Your task to perform on an android device: Open Google Chrome and click the shortcut for Amazon.com Image 0: 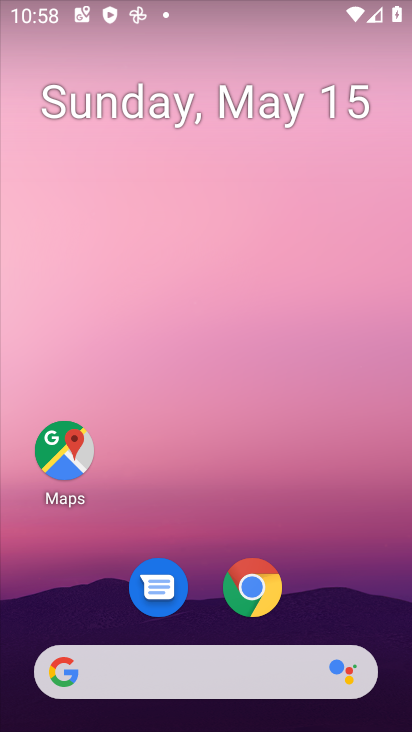
Step 0: drag from (383, 668) to (331, 74)
Your task to perform on an android device: Open Google Chrome and click the shortcut for Amazon.com Image 1: 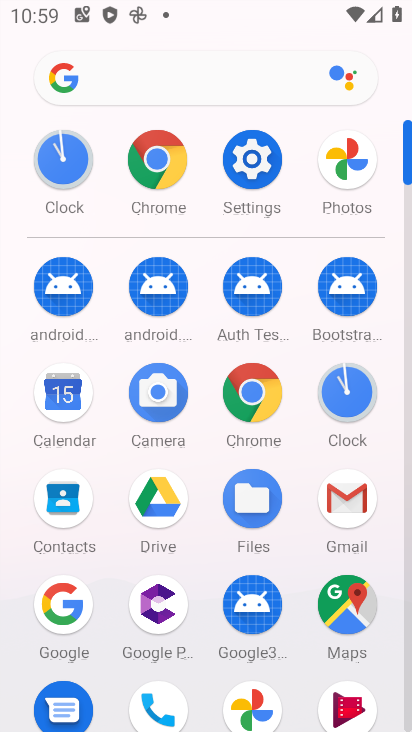
Step 1: click (252, 387)
Your task to perform on an android device: Open Google Chrome and click the shortcut for Amazon.com Image 2: 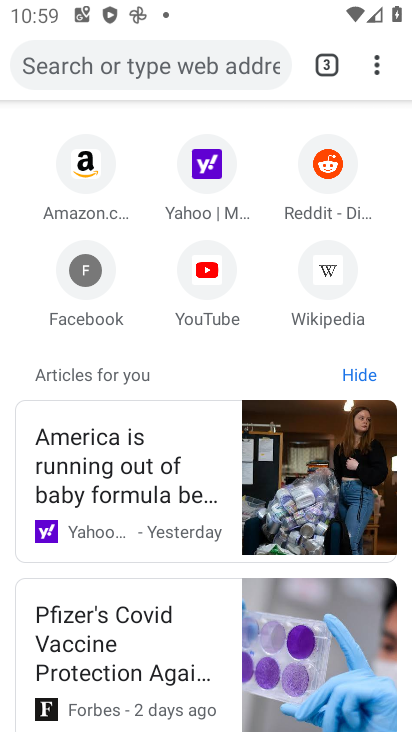
Step 2: click (72, 179)
Your task to perform on an android device: Open Google Chrome and click the shortcut for Amazon.com Image 3: 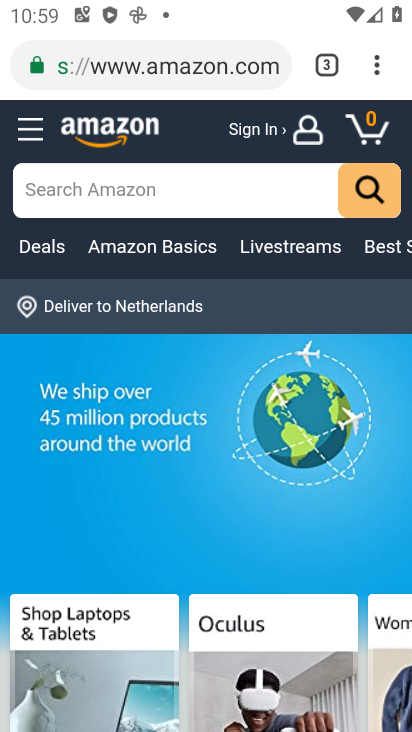
Step 3: task complete